Your task to perform on an android device: Open Android settings Image 0: 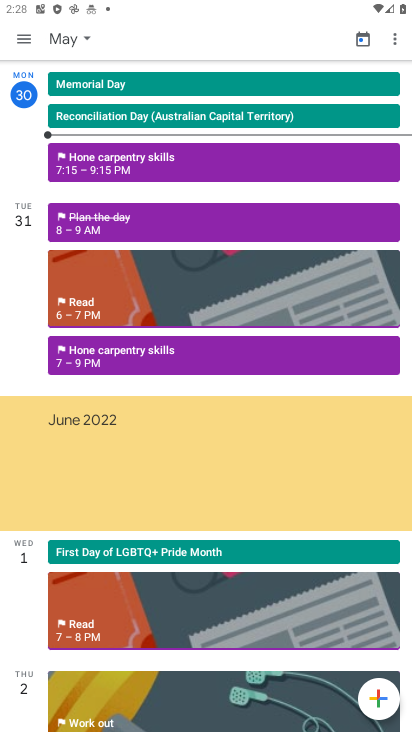
Step 0: press home button
Your task to perform on an android device: Open Android settings Image 1: 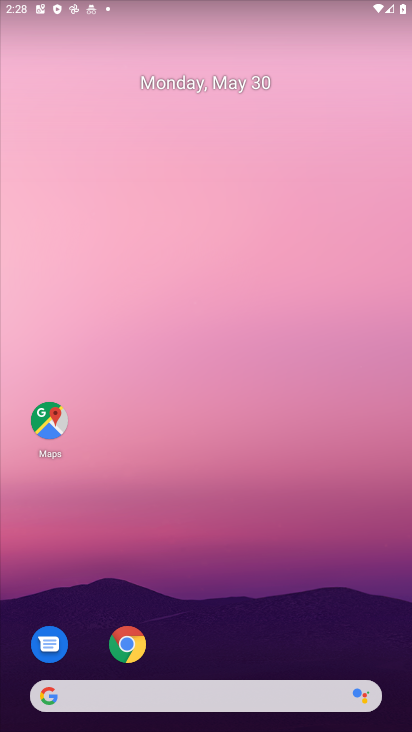
Step 1: drag from (252, 642) to (251, 92)
Your task to perform on an android device: Open Android settings Image 2: 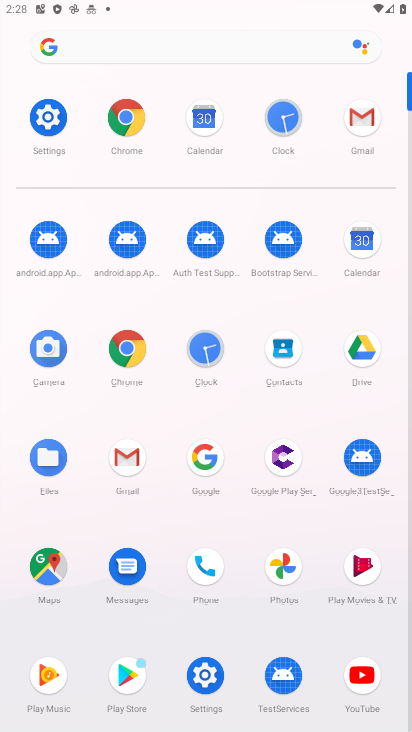
Step 2: click (45, 96)
Your task to perform on an android device: Open Android settings Image 3: 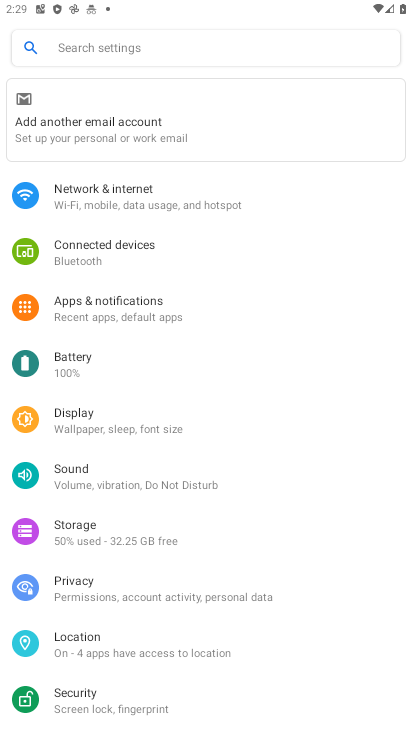
Step 3: press home button
Your task to perform on an android device: Open Android settings Image 4: 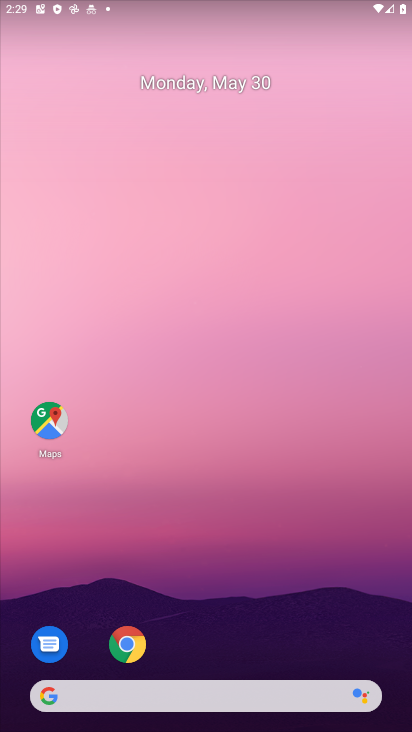
Step 4: drag from (264, 638) to (198, 93)
Your task to perform on an android device: Open Android settings Image 5: 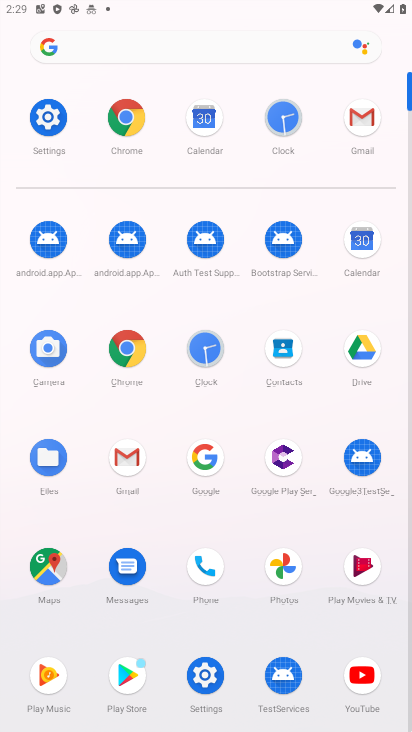
Step 5: click (46, 135)
Your task to perform on an android device: Open Android settings Image 6: 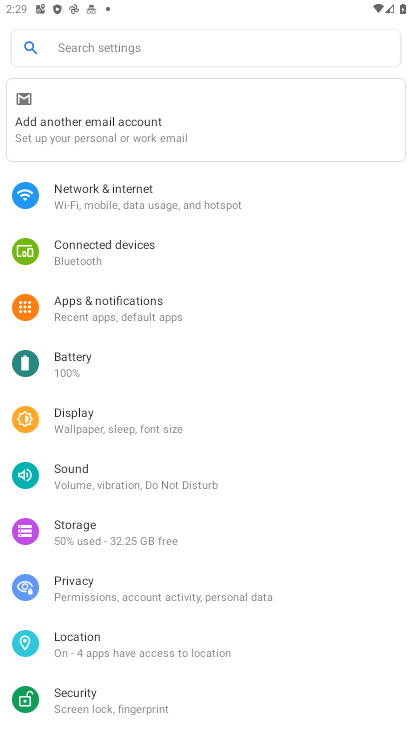
Step 6: task complete